Your task to perform on an android device: How much does a 2 bedroom apartment rent for in Chicago? Image 0: 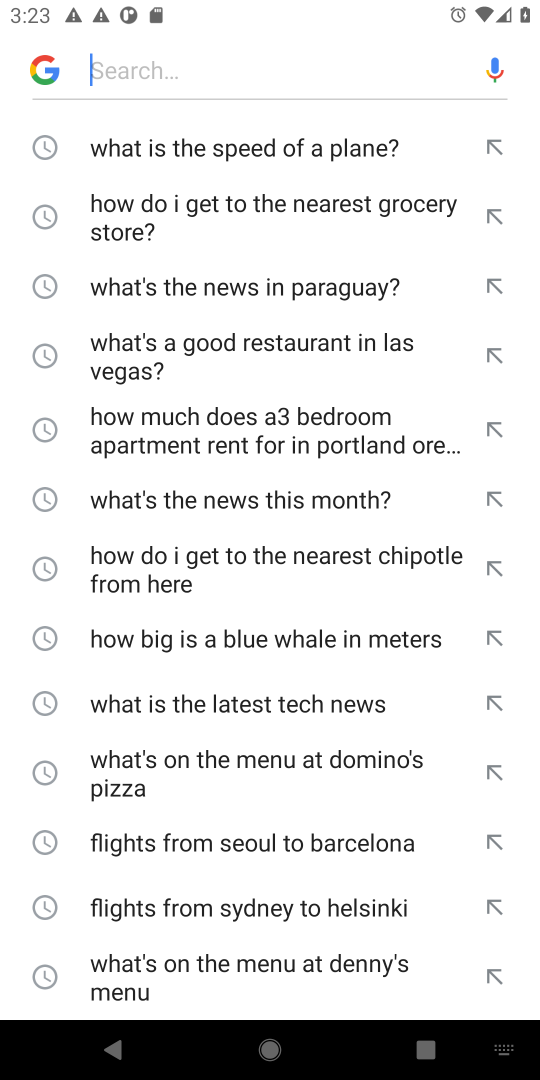
Step 0: press home button
Your task to perform on an android device: How much does a 2 bedroom apartment rent for in Chicago? Image 1: 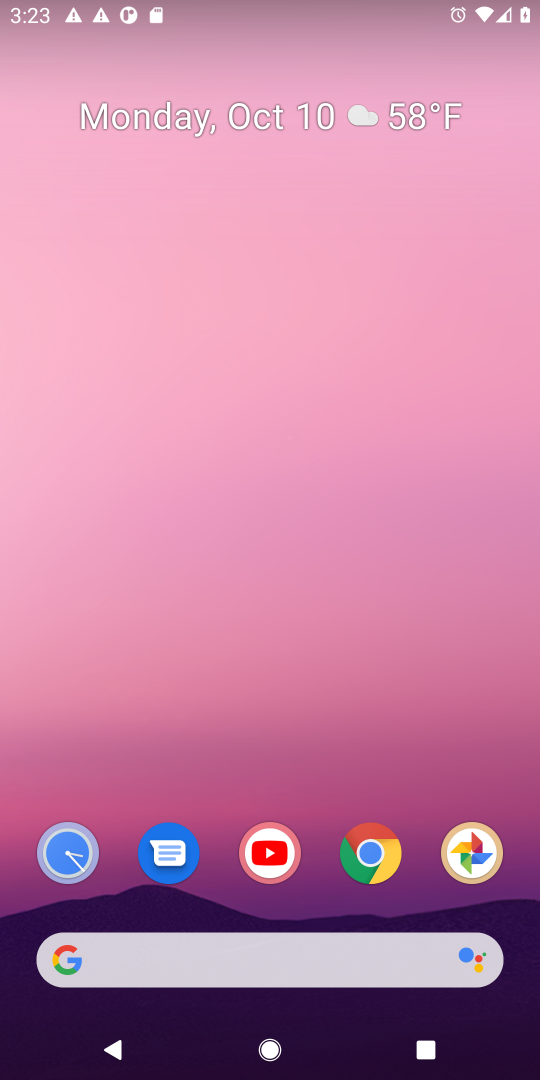
Step 1: click (385, 859)
Your task to perform on an android device: How much does a 2 bedroom apartment rent for in Chicago? Image 2: 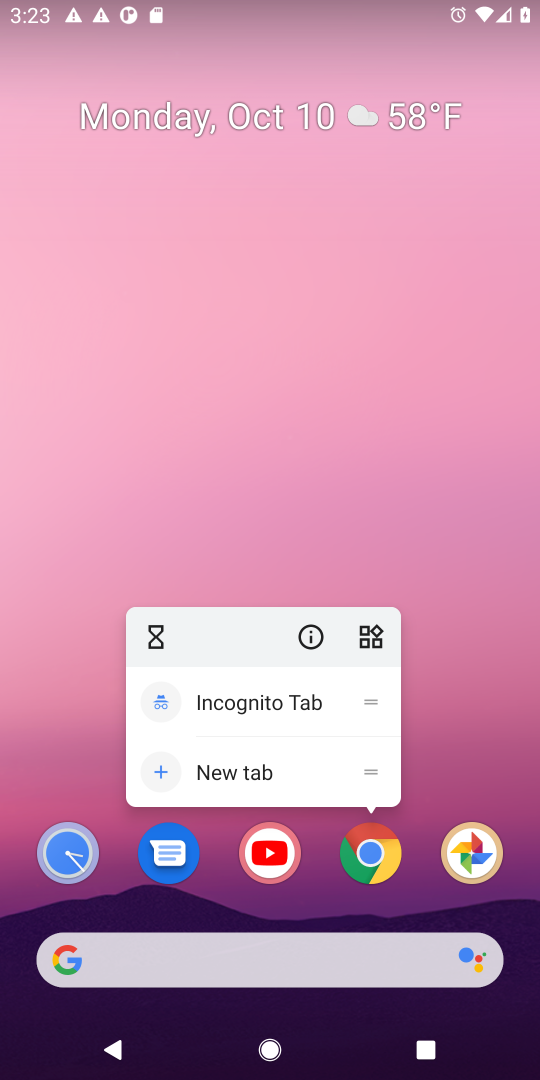
Step 2: click (380, 851)
Your task to perform on an android device: How much does a 2 bedroom apartment rent for in Chicago? Image 3: 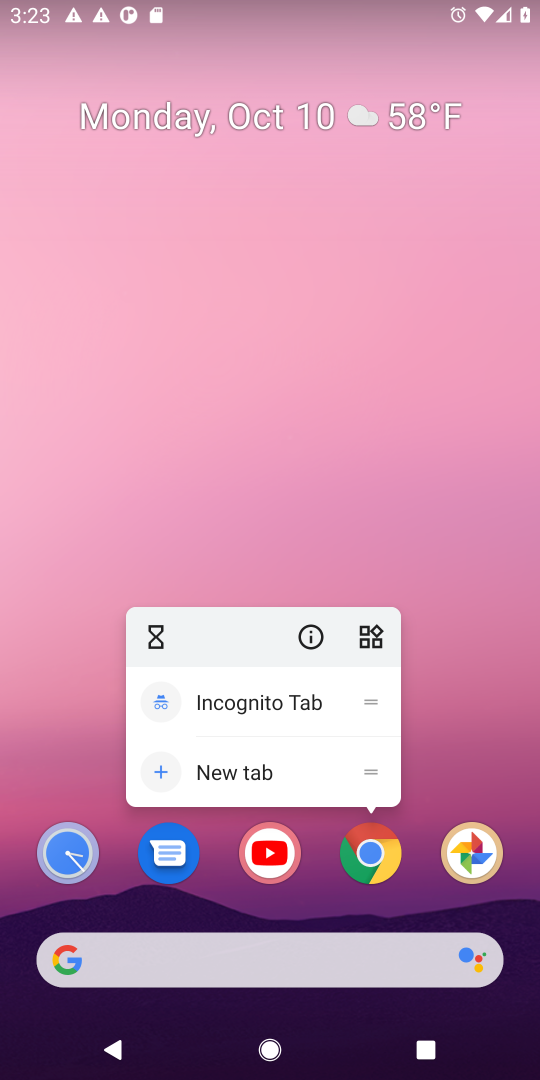
Step 3: click (374, 862)
Your task to perform on an android device: How much does a 2 bedroom apartment rent for in Chicago? Image 4: 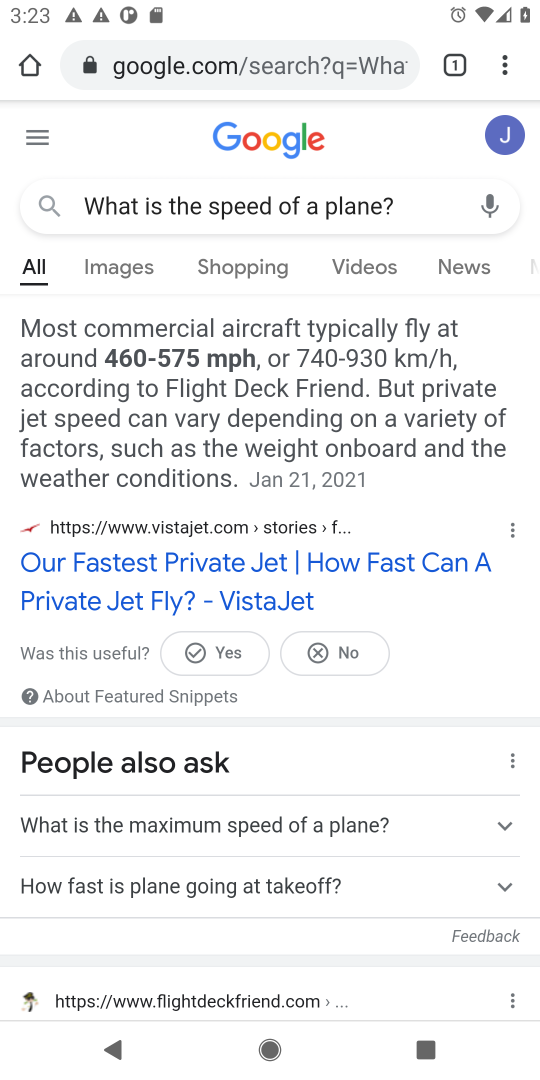
Step 4: click (258, 71)
Your task to perform on an android device: How much does a 2 bedroom apartment rent for in Chicago? Image 5: 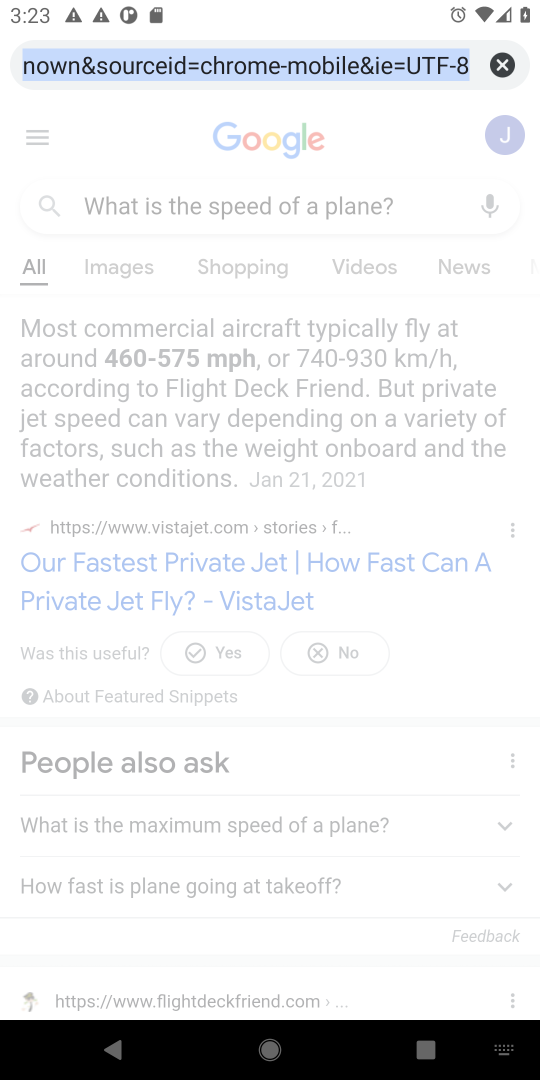
Step 5: click (492, 61)
Your task to perform on an android device: How much does a 2 bedroom apartment rent for in Chicago? Image 6: 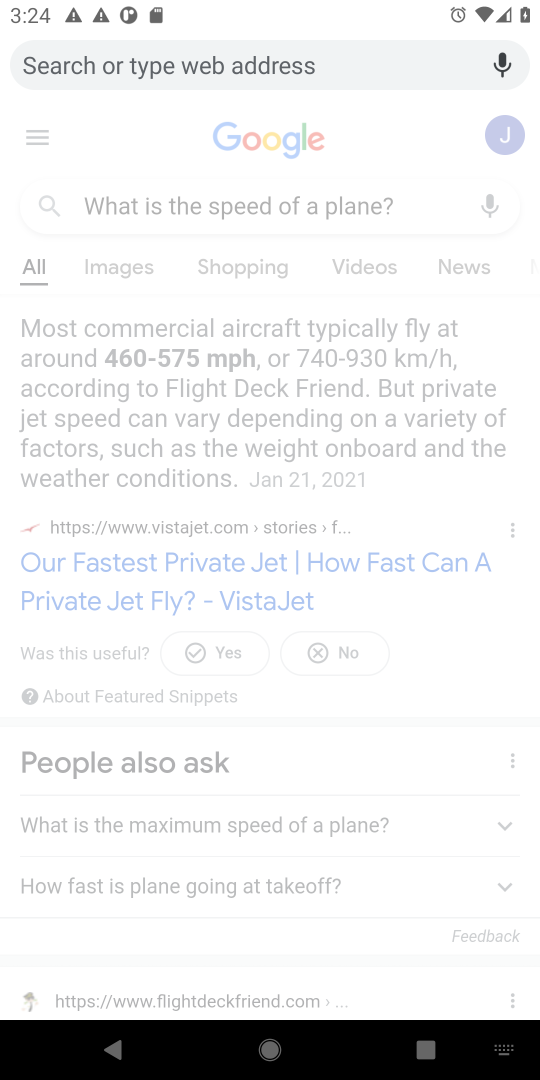
Step 6: type "How much does a 2 bedroom apartment rent for in Chicago?"
Your task to perform on an android device: How much does a 2 bedroom apartment rent for in Chicago? Image 7: 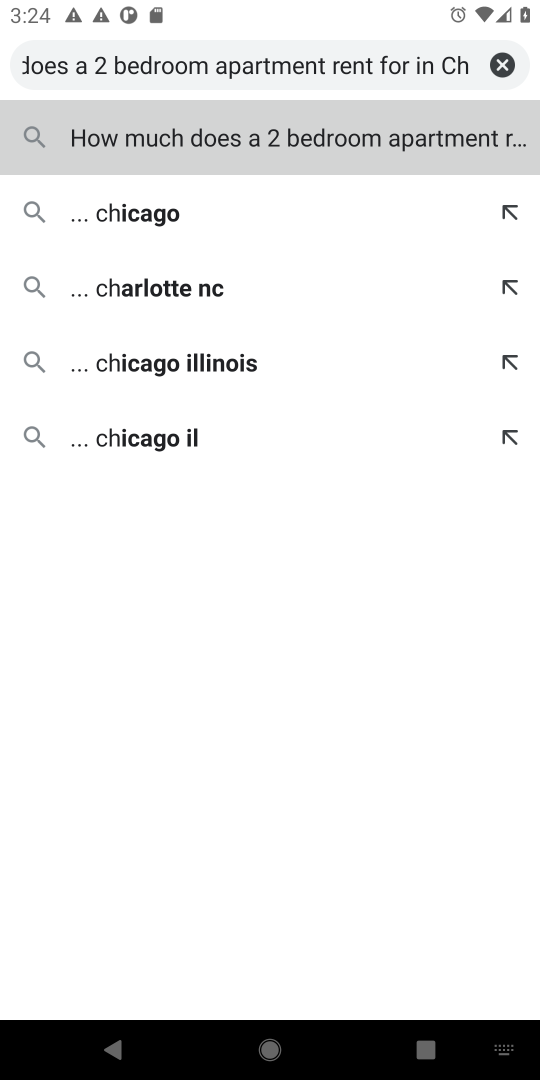
Step 7: click (400, 136)
Your task to perform on an android device: How much does a 2 bedroom apartment rent for in Chicago? Image 8: 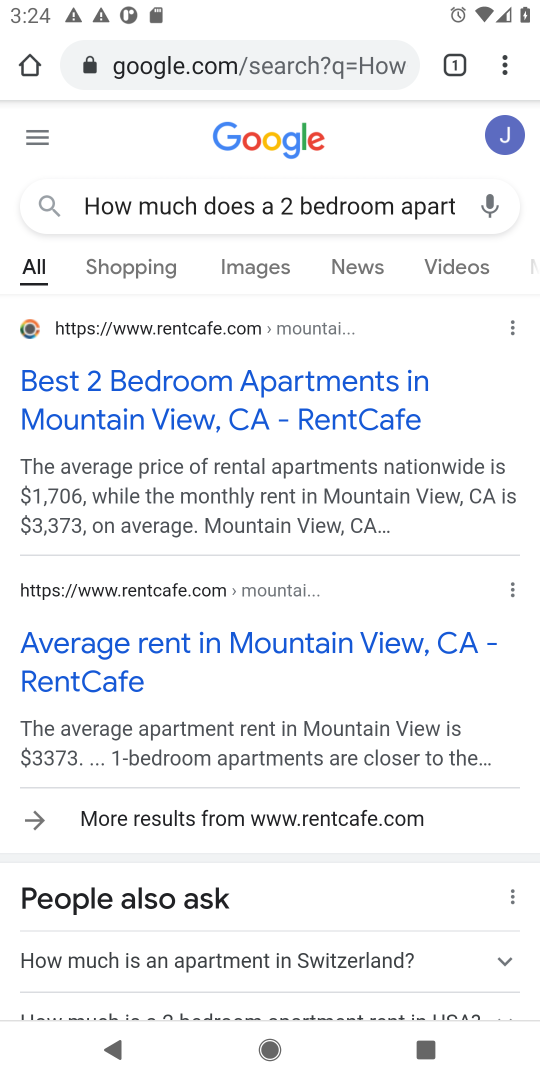
Step 8: task complete